Your task to perform on an android device: turn off sleep mode Image 0: 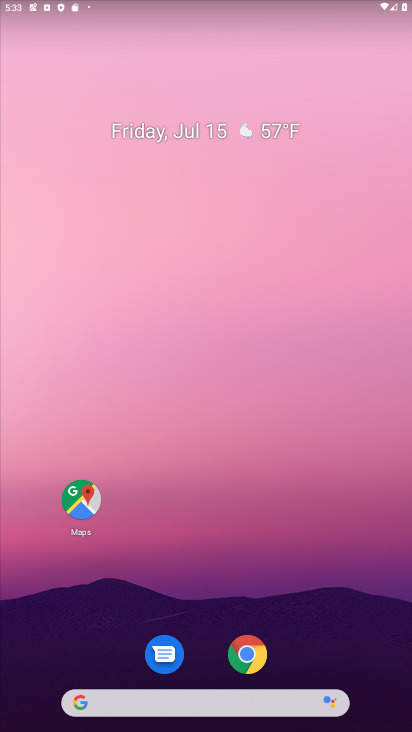
Step 0: drag from (198, 646) to (232, 35)
Your task to perform on an android device: turn off sleep mode Image 1: 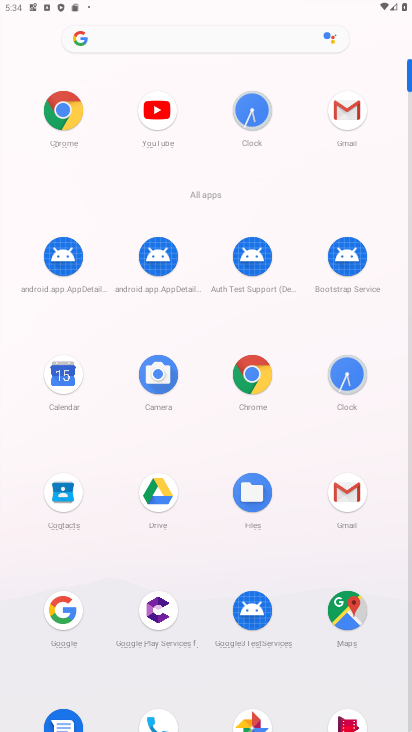
Step 1: drag from (141, 550) to (187, 184)
Your task to perform on an android device: turn off sleep mode Image 2: 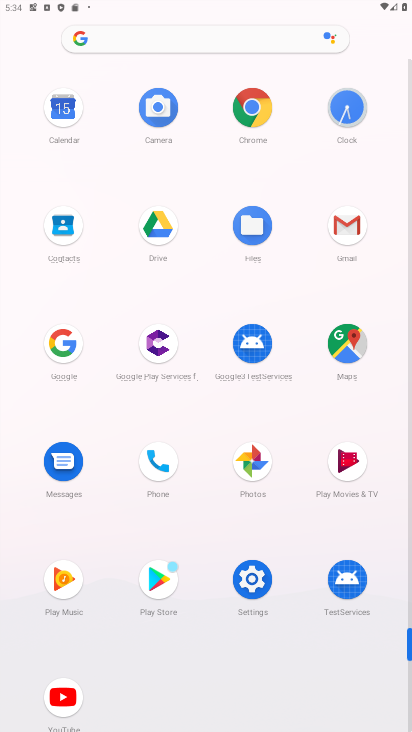
Step 2: click (239, 576)
Your task to perform on an android device: turn off sleep mode Image 3: 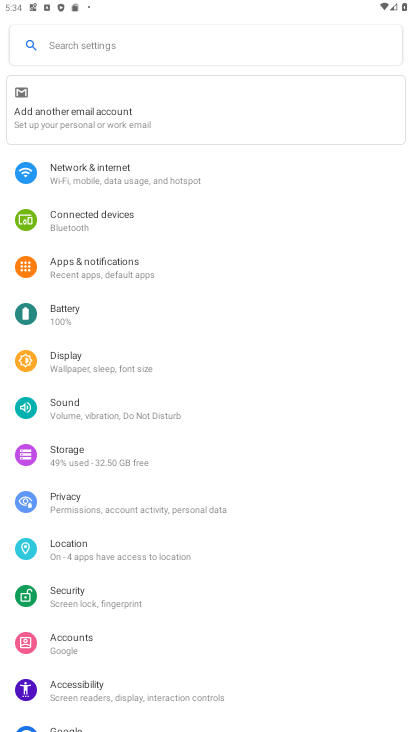
Step 3: task complete